Your task to perform on an android device: change the clock display to analog Image 0: 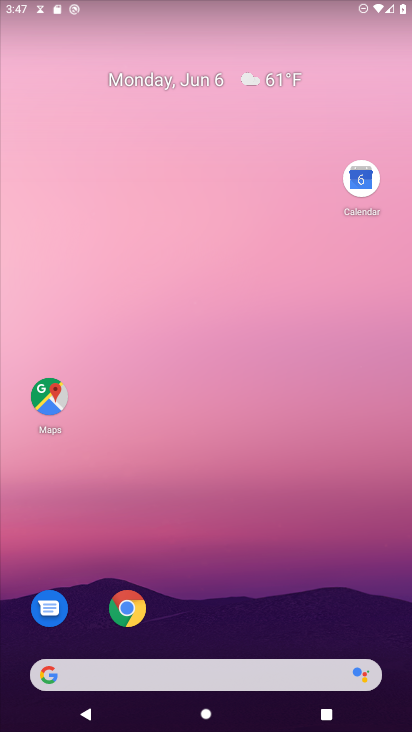
Step 0: drag from (268, 616) to (287, 24)
Your task to perform on an android device: change the clock display to analog Image 1: 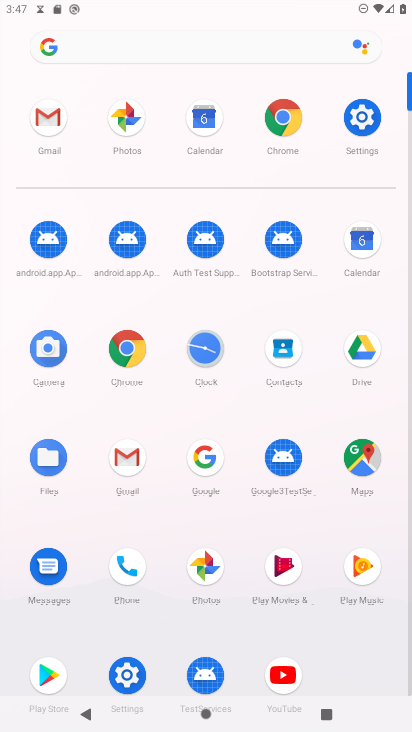
Step 1: click (191, 349)
Your task to perform on an android device: change the clock display to analog Image 2: 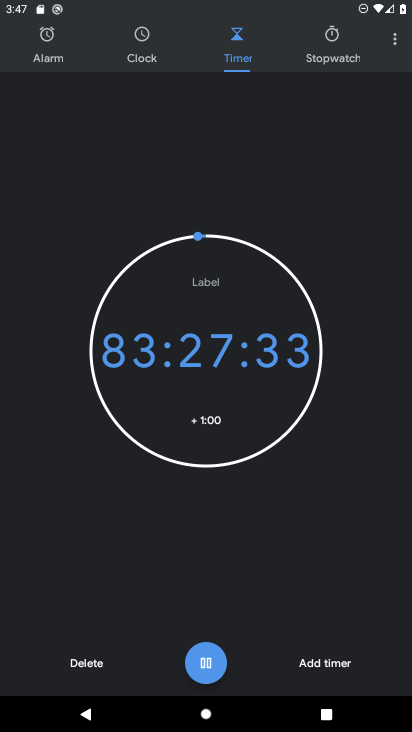
Step 2: click (398, 46)
Your task to perform on an android device: change the clock display to analog Image 3: 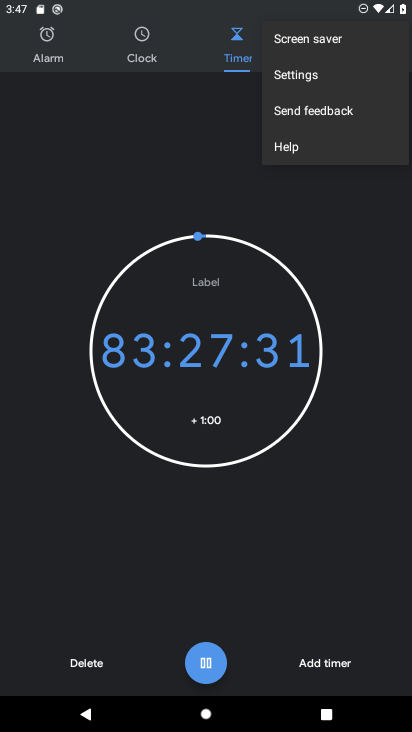
Step 3: click (299, 78)
Your task to perform on an android device: change the clock display to analog Image 4: 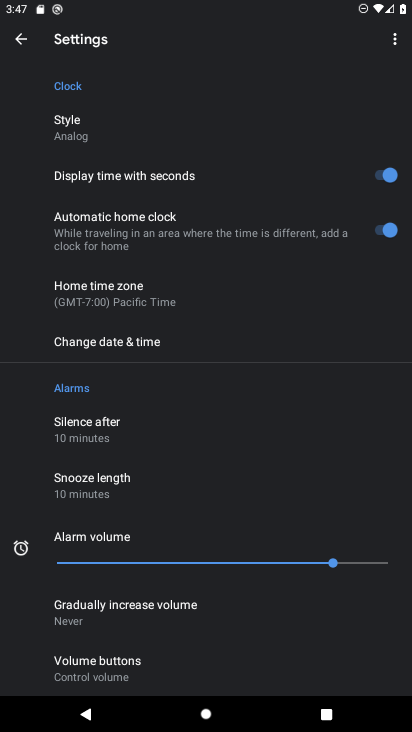
Step 4: click (94, 126)
Your task to perform on an android device: change the clock display to analog Image 5: 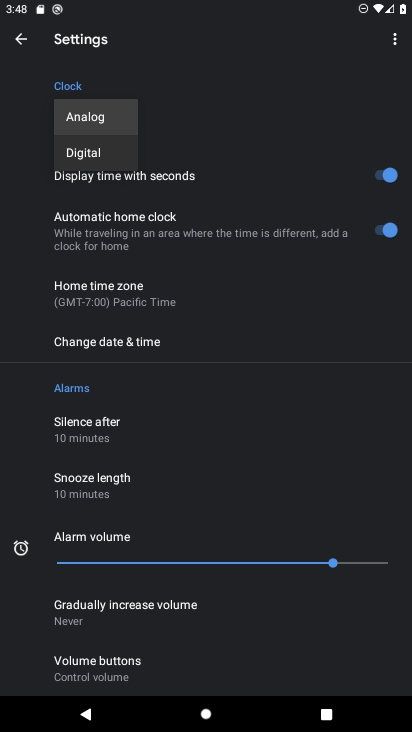
Step 5: click (102, 116)
Your task to perform on an android device: change the clock display to analog Image 6: 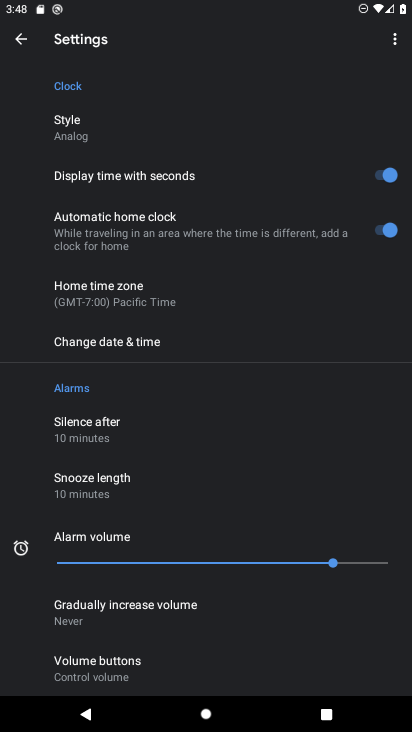
Step 6: task complete